Your task to perform on an android device: open chrome and create a bookmark for the current page Image 0: 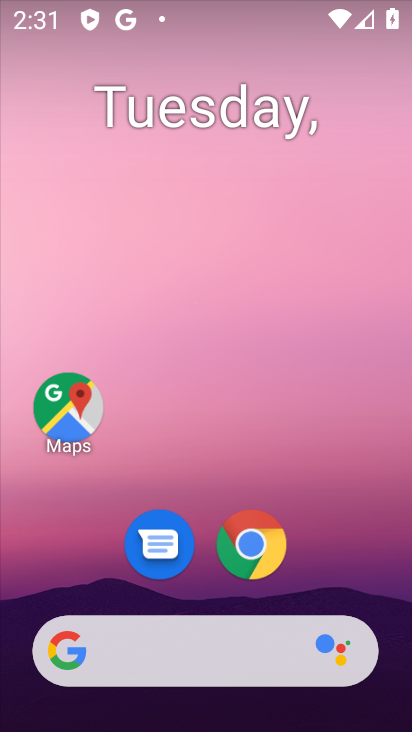
Step 0: click (259, 547)
Your task to perform on an android device: open chrome and create a bookmark for the current page Image 1: 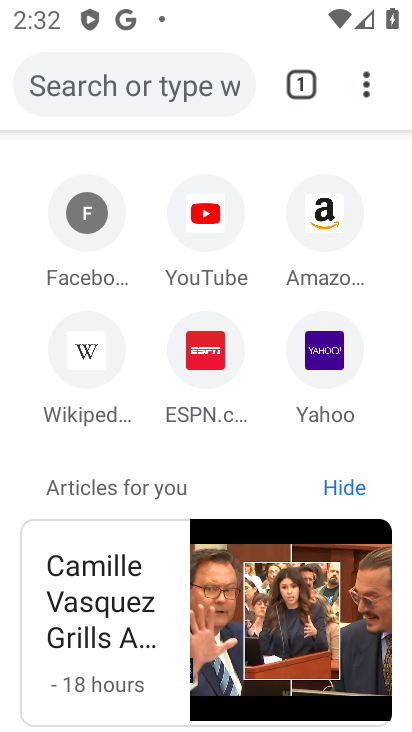
Step 1: task complete